Your task to perform on an android device: Go to network settings Image 0: 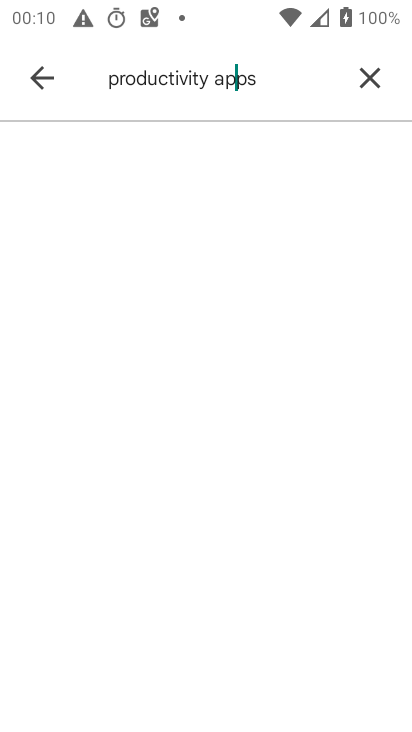
Step 0: drag from (292, 679) to (198, 177)
Your task to perform on an android device: Go to network settings Image 1: 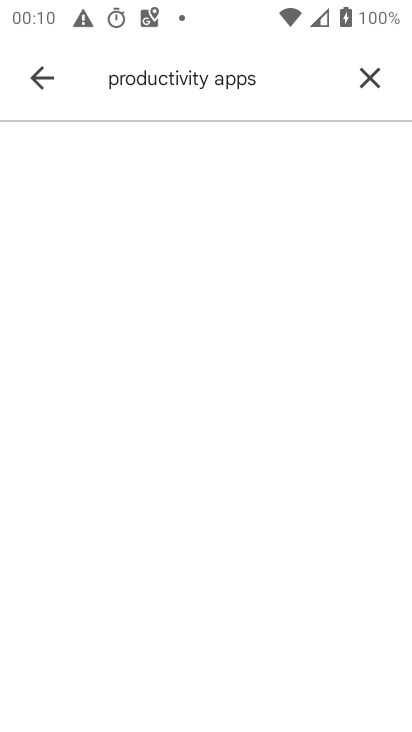
Step 1: click (29, 72)
Your task to perform on an android device: Go to network settings Image 2: 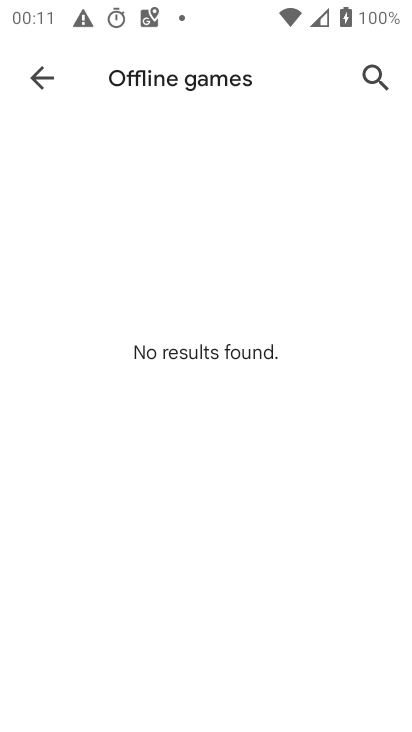
Step 2: click (41, 87)
Your task to perform on an android device: Go to network settings Image 3: 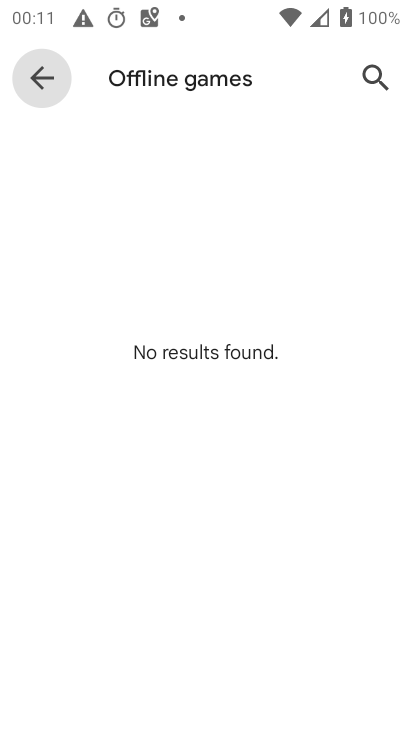
Step 3: click (40, 88)
Your task to perform on an android device: Go to network settings Image 4: 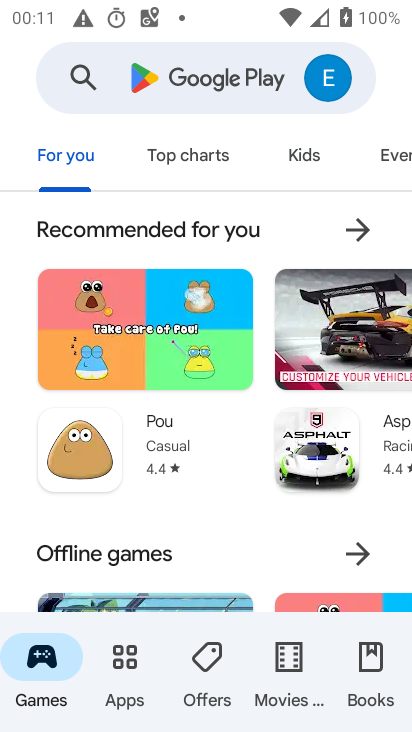
Step 4: click (192, 69)
Your task to perform on an android device: Go to network settings Image 5: 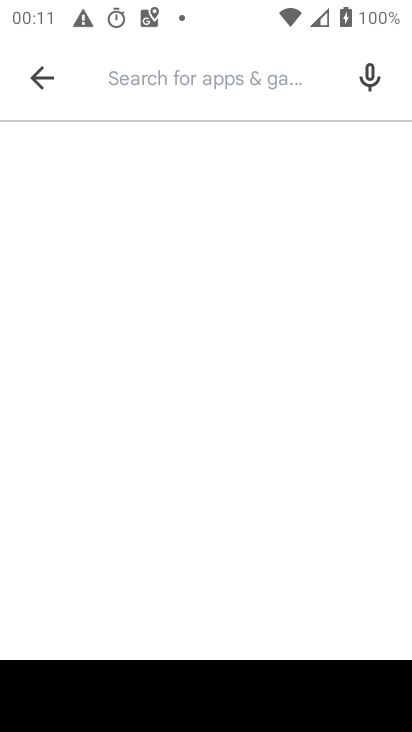
Step 5: click (59, 80)
Your task to perform on an android device: Go to network settings Image 6: 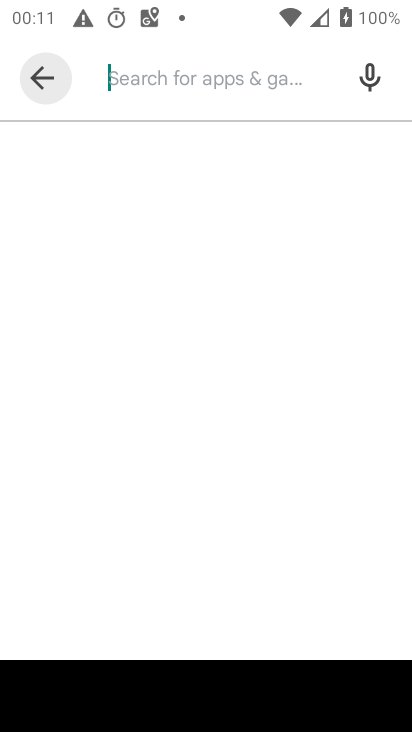
Step 6: click (47, 76)
Your task to perform on an android device: Go to network settings Image 7: 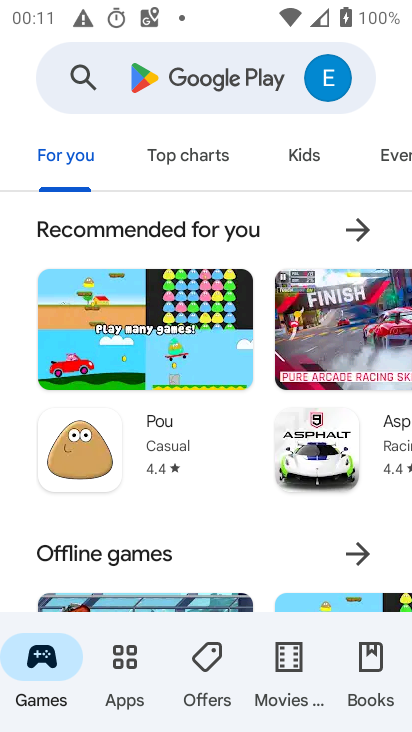
Step 7: press back button
Your task to perform on an android device: Go to network settings Image 8: 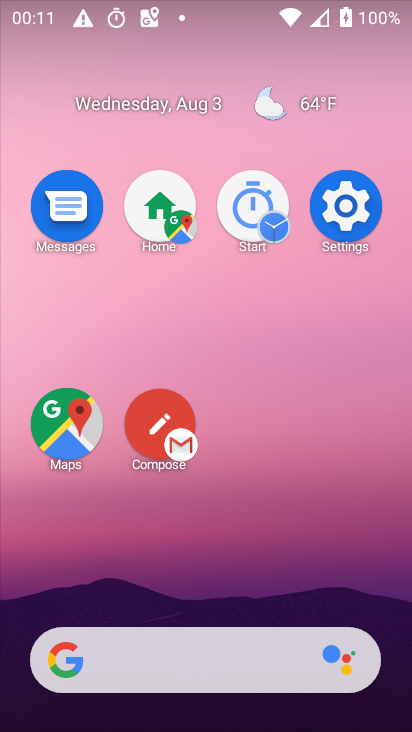
Step 8: drag from (217, 600) to (199, 31)
Your task to perform on an android device: Go to network settings Image 9: 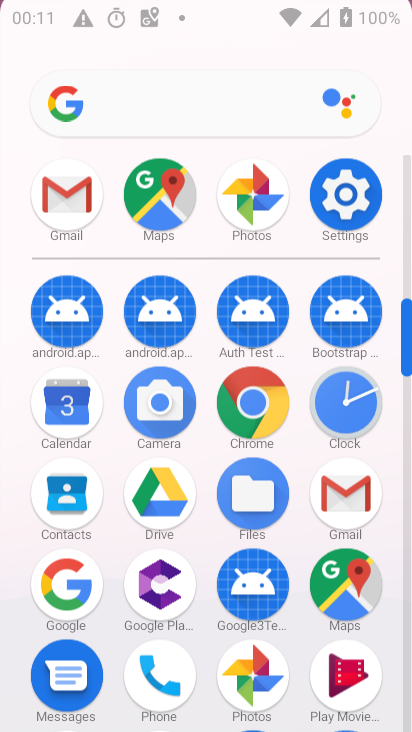
Step 9: drag from (235, 454) to (247, 169)
Your task to perform on an android device: Go to network settings Image 10: 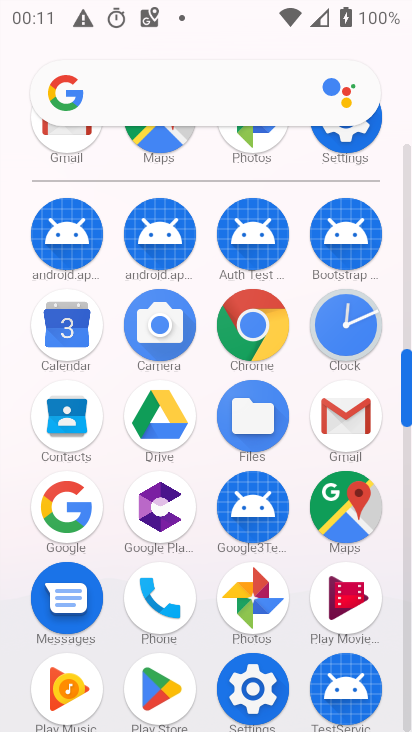
Step 10: click (337, 133)
Your task to perform on an android device: Go to network settings Image 11: 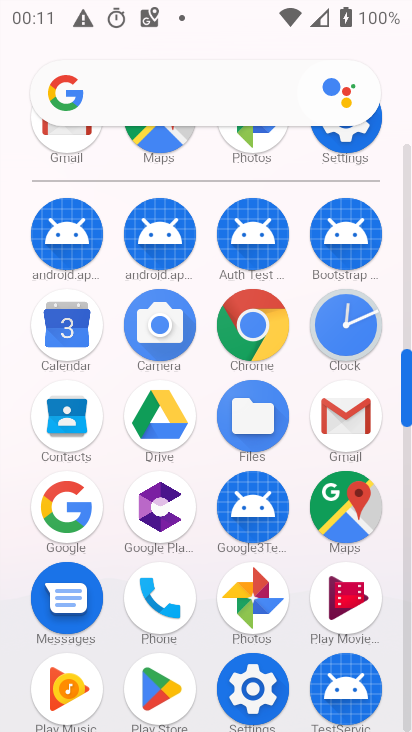
Step 11: click (337, 133)
Your task to perform on an android device: Go to network settings Image 12: 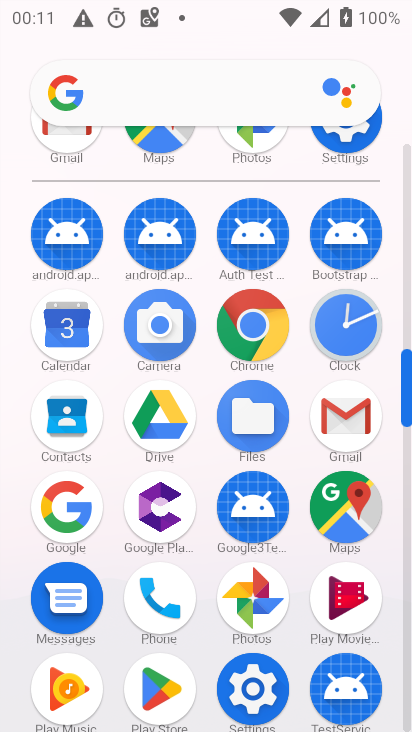
Step 12: click (343, 140)
Your task to perform on an android device: Go to network settings Image 13: 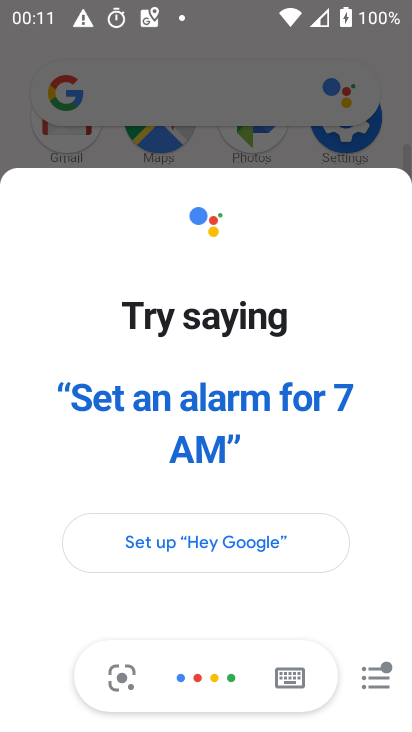
Step 13: click (349, 140)
Your task to perform on an android device: Go to network settings Image 14: 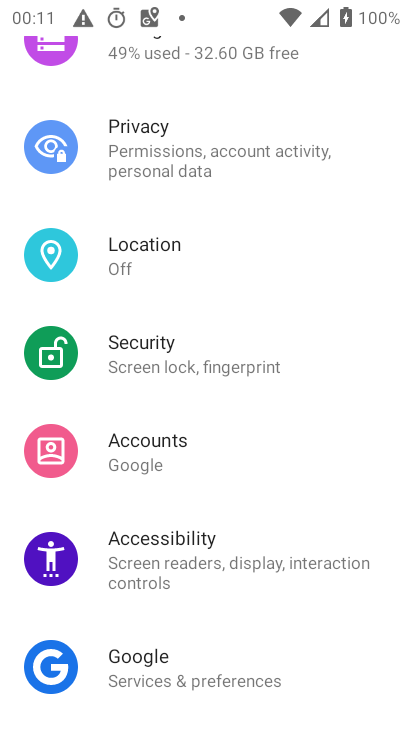
Step 14: drag from (119, 228) to (106, 607)
Your task to perform on an android device: Go to network settings Image 15: 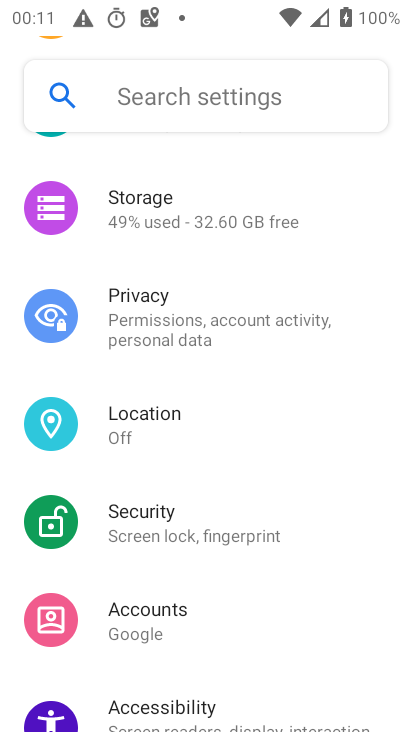
Step 15: drag from (106, 233) to (177, 707)
Your task to perform on an android device: Go to network settings Image 16: 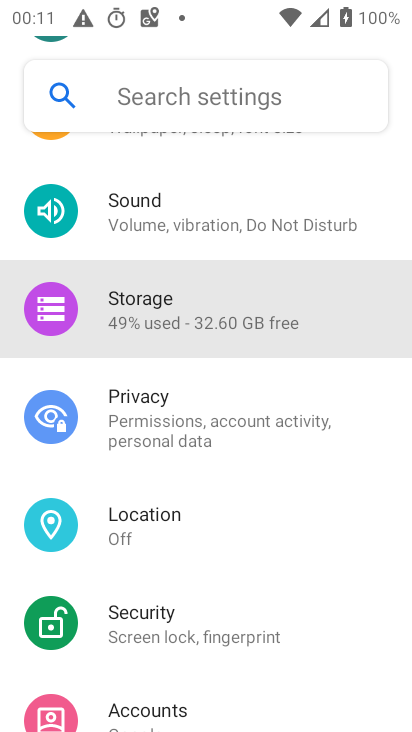
Step 16: drag from (171, 367) to (222, 712)
Your task to perform on an android device: Go to network settings Image 17: 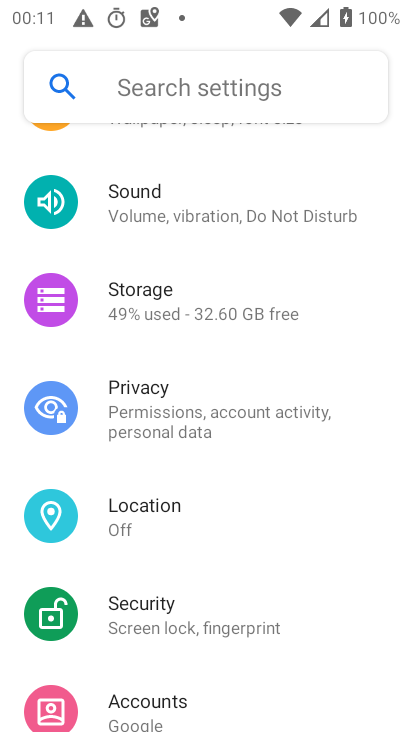
Step 17: drag from (216, 290) to (221, 731)
Your task to perform on an android device: Go to network settings Image 18: 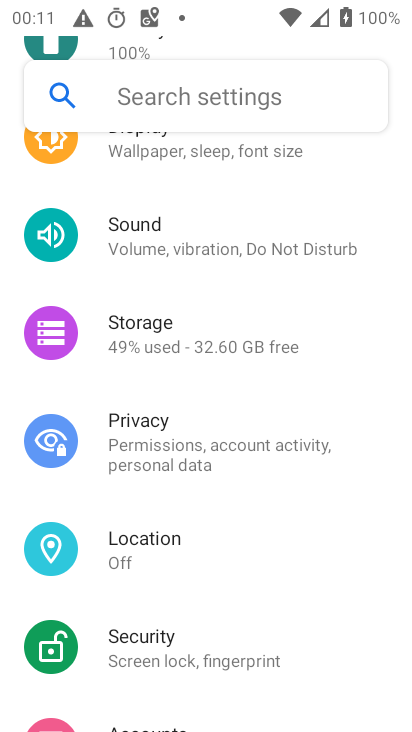
Step 18: drag from (173, 509) to (173, 561)
Your task to perform on an android device: Go to network settings Image 19: 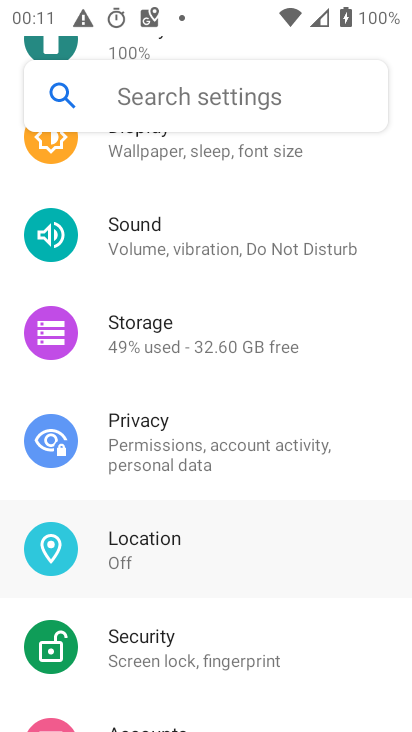
Step 19: drag from (131, 268) to (205, 636)
Your task to perform on an android device: Go to network settings Image 20: 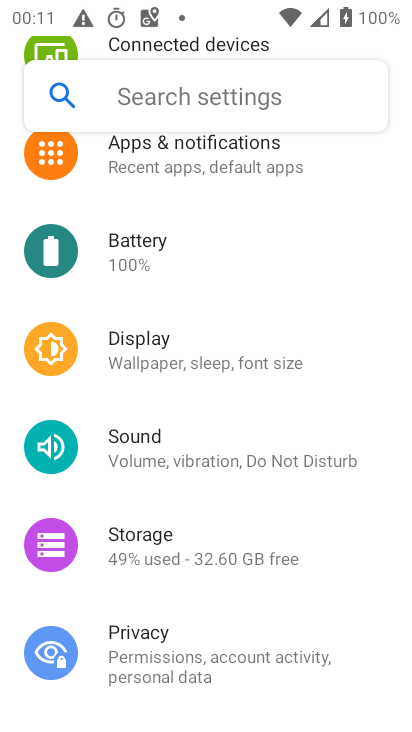
Step 20: drag from (187, 284) to (226, 644)
Your task to perform on an android device: Go to network settings Image 21: 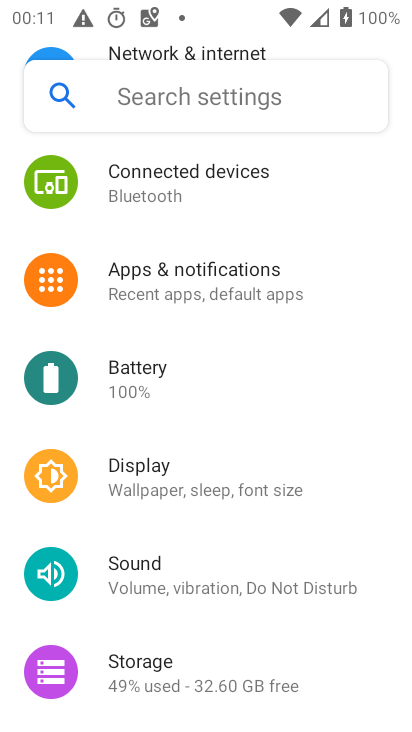
Step 21: drag from (207, 363) to (247, 611)
Your task to perform on an android device: Go to network settings Image 22: 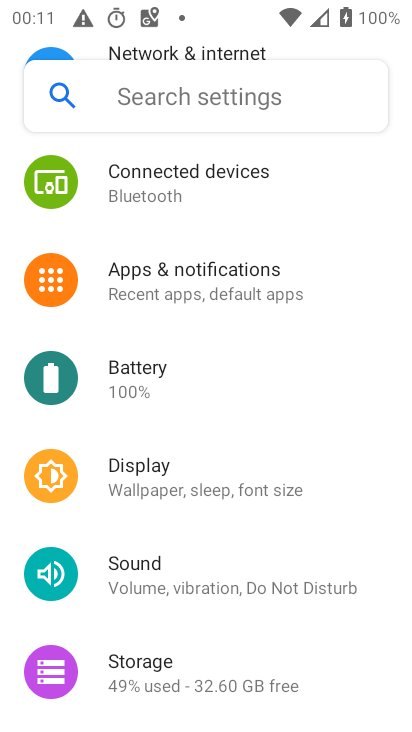
Step 22: drag from (140, 219) to (174, 693)
Your task to perform on an android device: Go to network settings Image 23: 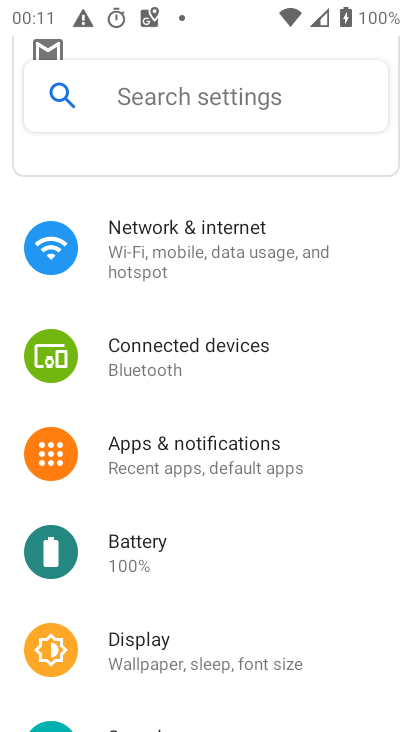
Step 23: drag from (164, 358) to (177, 581)
Your task to perform on an android device: Go to network settings Image 24: 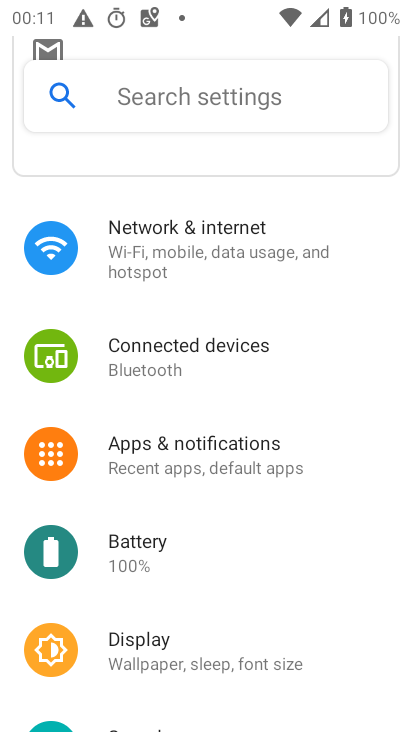
Step 24: click (145, 540)
Your task to perform on an android device: Go to network settings Image 25: 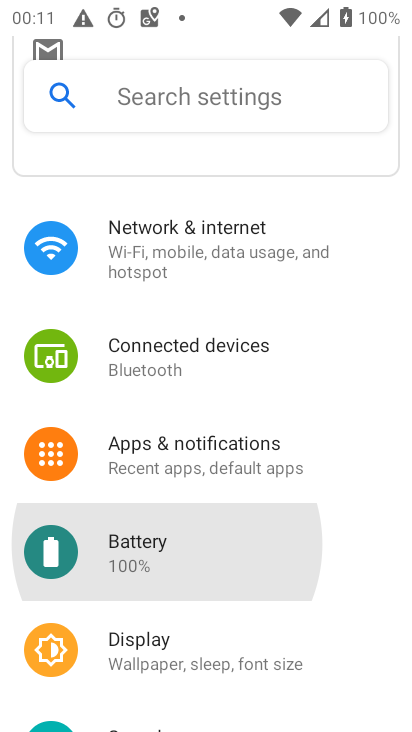
Step 25: drag from (126, 338) to (200, 568)
Your task to perform on an android device: Go to network settings Image 26: 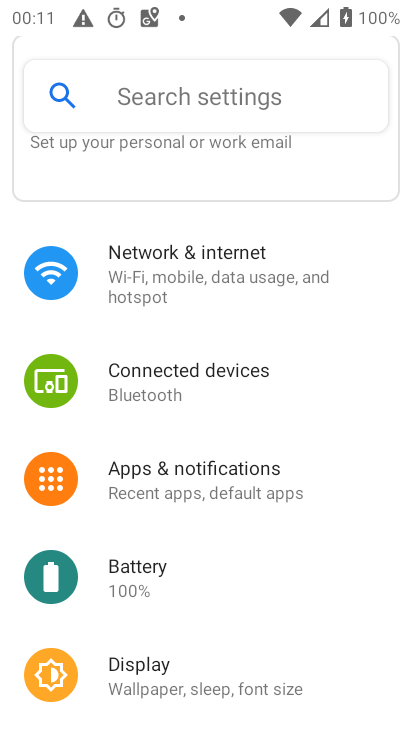
Step 26: click (188, 250)
Your task to perform on an android device: Go to network settings Image 27: 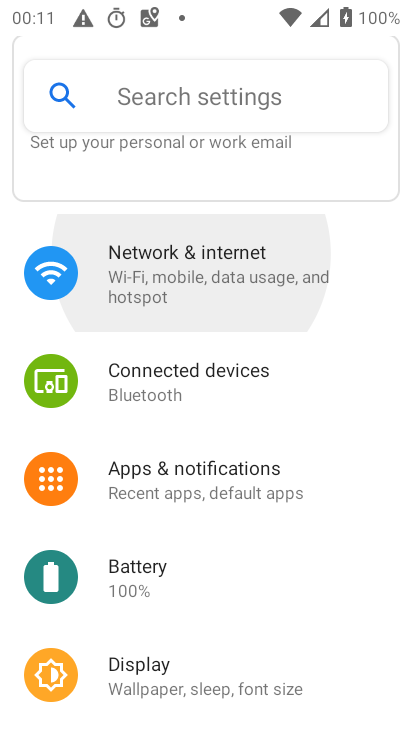
Step 27: click (188, 246)
Your task to perform on an android device: Go to network settings Image 28: 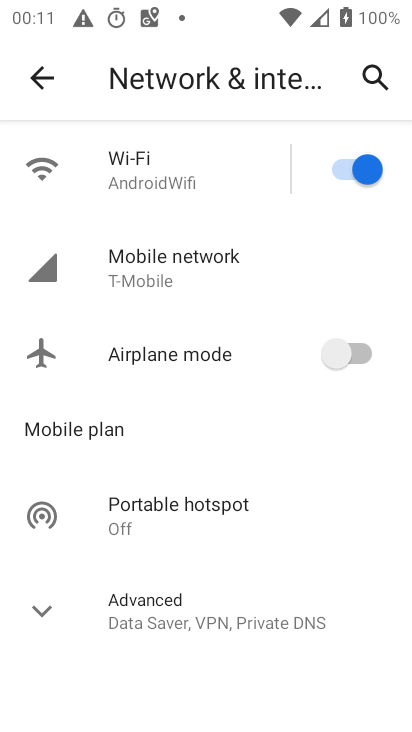
Step 28: task complete